Your task to perform on an android device: Open location settings Image 0: 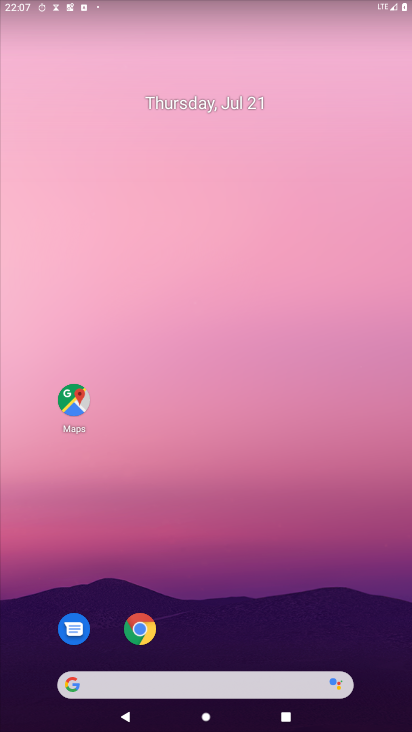
Step 0: drag from (214, 647) to (250, 125)
Your task to perform on an android device: Open location settings Image 1: 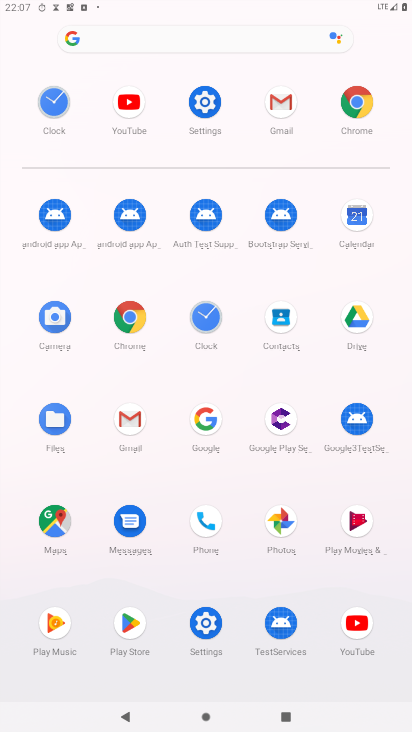
Step 1: click (220, 618)
Your task to perform on an android device: Open location settings Image 2: 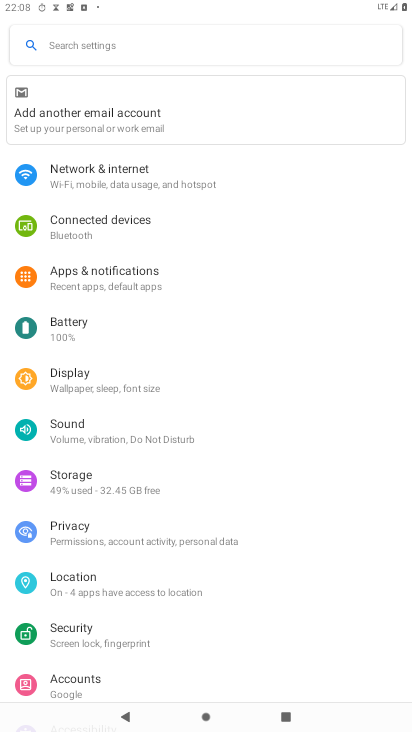
Step 2: click (158, 595)
Your task to perform on an android device: Open location settings Image 3: 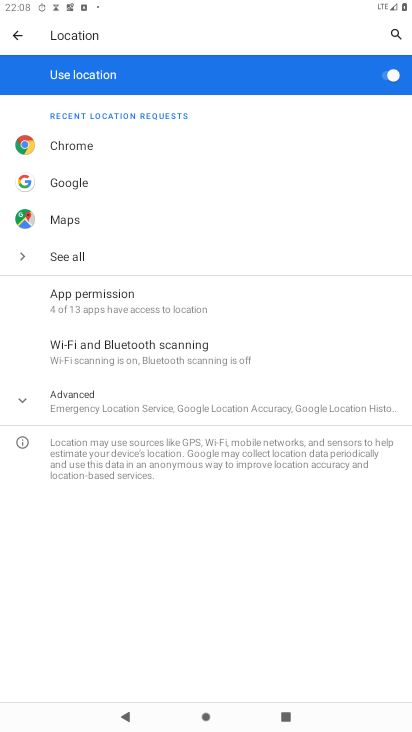
Step 3: task complete